Your task to perform on an android device: Go to Yahoo.com Image 0: 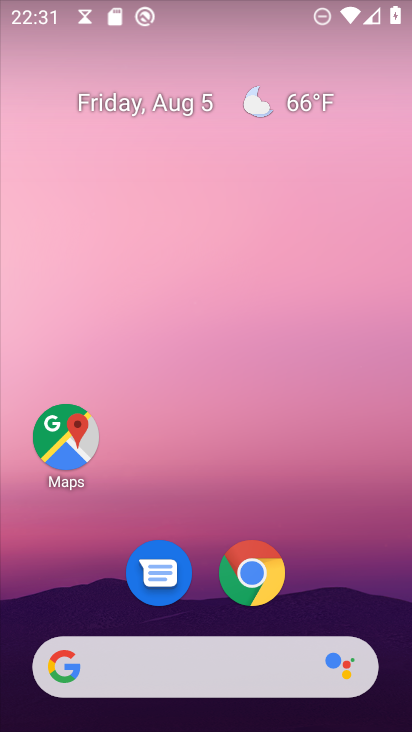
Step 0: click (253, 568)
Your task to perform on an android device: Go to Yahoo.com Image 1: 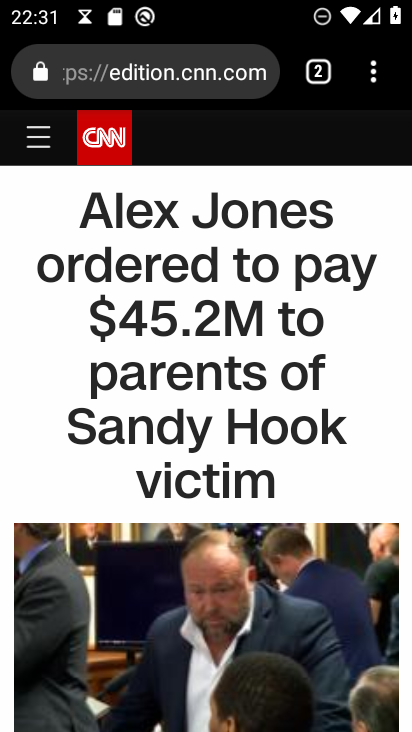
Step 1: click (250, 65)
Your task to perform on an android device: Go to Yahoo.com Image 2: 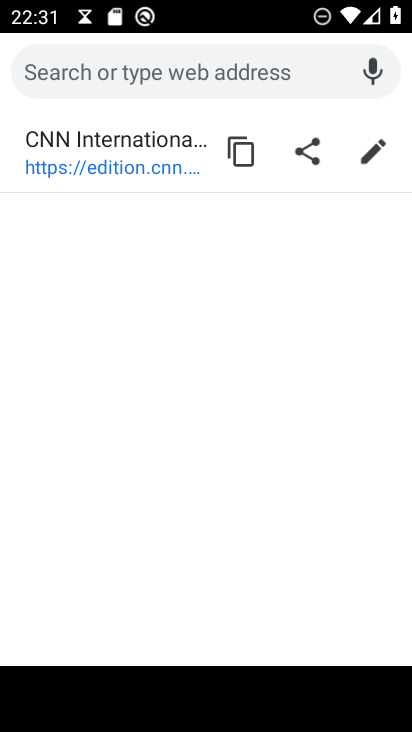
Step 2: click (269, 64)
Your task to perform on an android device: Go to Yahoo.com Image 3: 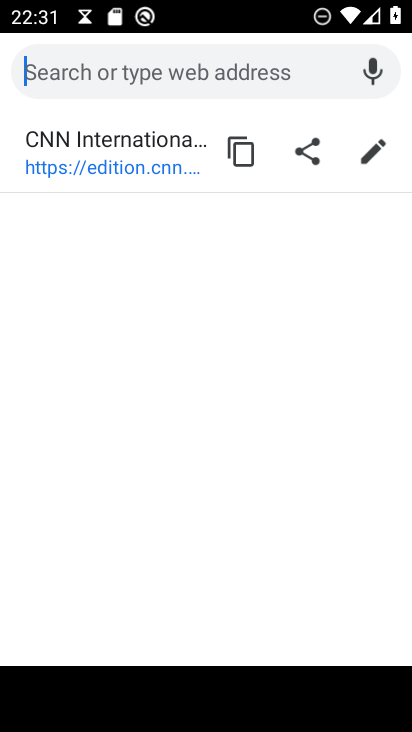
Step 3: type "Yahoo.com"
Your task to perform on an android device: Go to Yahoo.com Image 4: 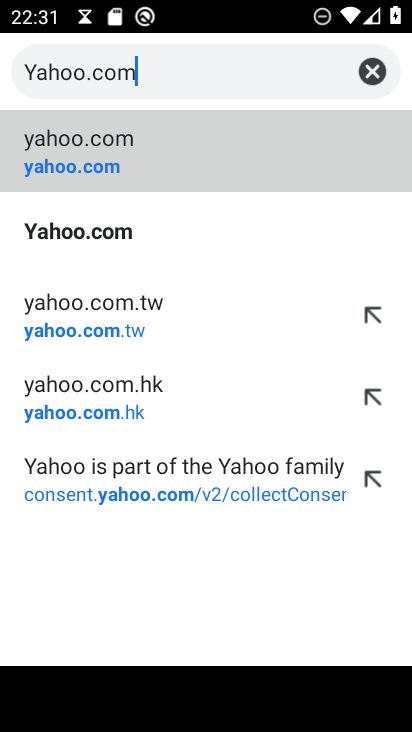
Step 4: click (117, 234)
Your task to perform on an android device: Go to Yahoo.com Image 5: 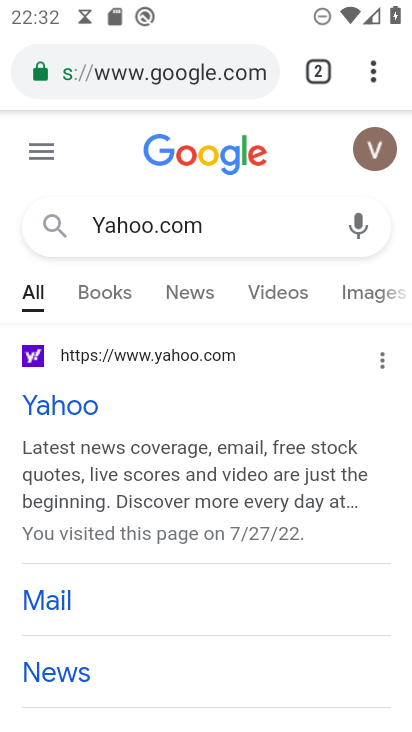
Step 5: click (76, 397)
Your task to perform on an android device: Go to Yahoo.com Image 6: 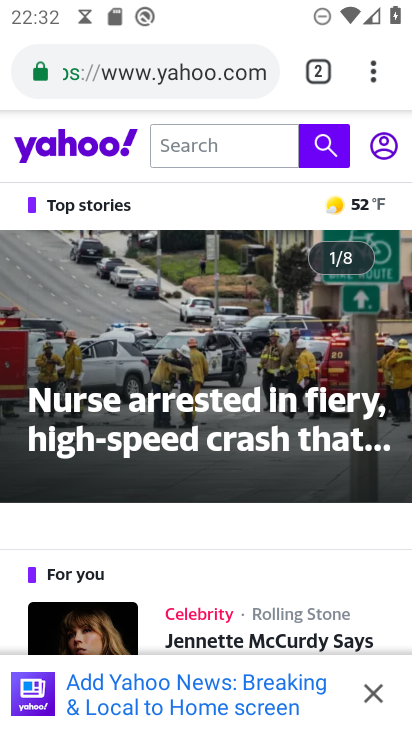
Step 6: task complete